Your task to perform on an android device: allow cookies in the chrome app Image 0: 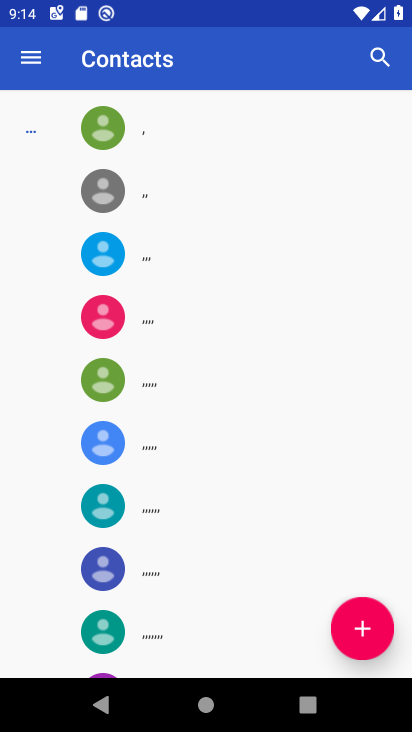
Step 0: press home button
Your task to perform on an android device: allow cookies in the chrome app Image 1: 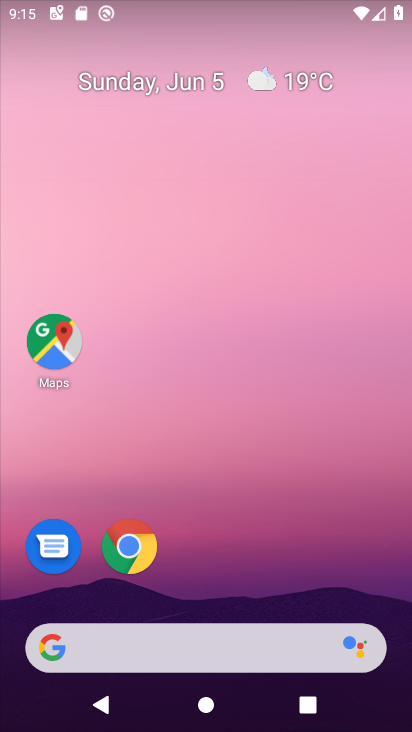
Step 1: drag from (268, 584) to (255, 179)
Your task to perform on an android device: allow cookies in the chrome app Image 2: 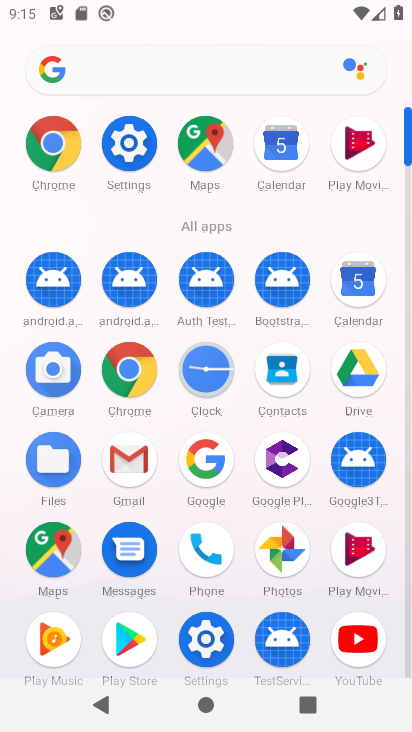
Step 2: click (53, 132)
Your task to perform on an android device: allow cookies in the chrome app Image 3: 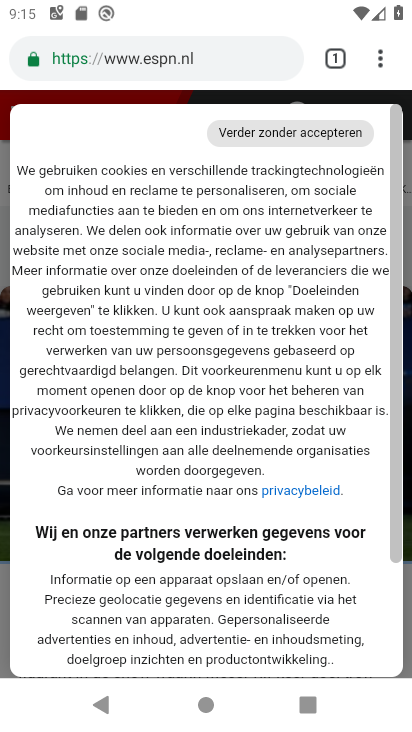
Step 3: drag from (379, 45) to (159, 587)
Your task to perform on an android device: allow cookies in the chrome app Image 4: 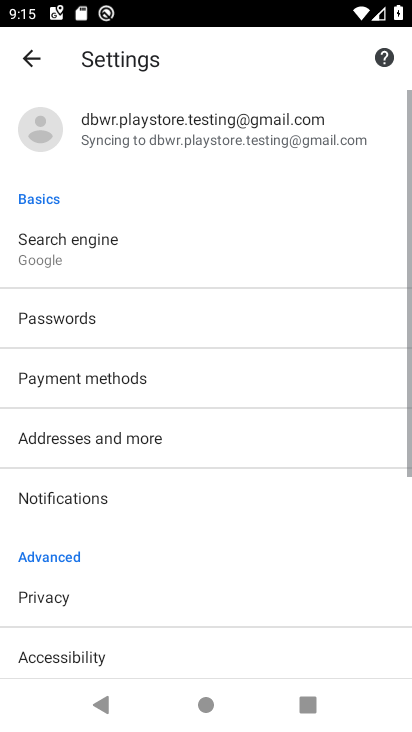
Step 4: drag from (204, 620) to (150, 308)
Your task to perform on an android device: allow cookies in the chrome app Image 5: 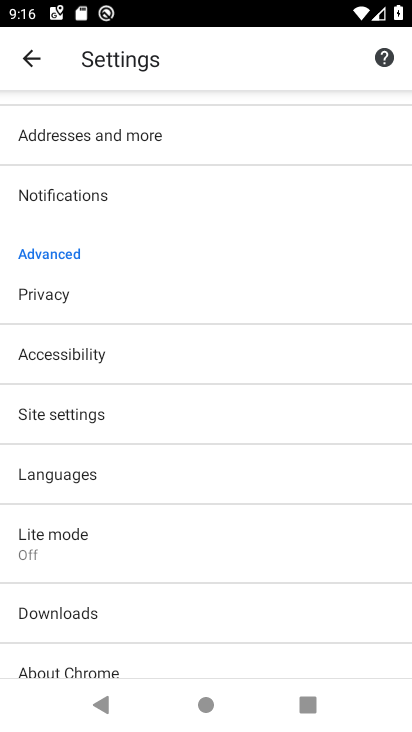
Step 5: click (262, 409)
Your task to perform on an android device: allow cookies in the chrome app Image 6: 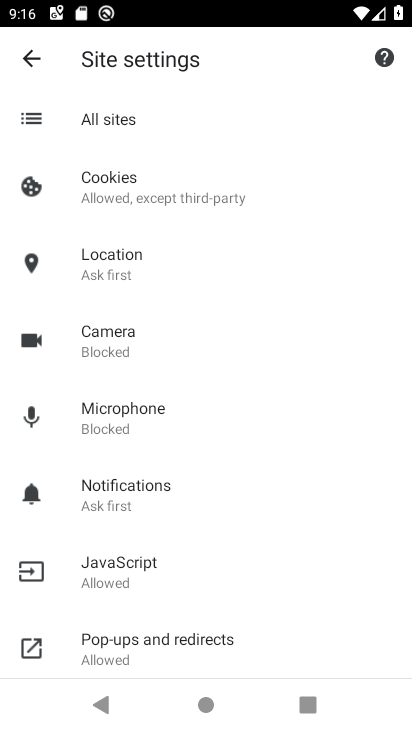
Step 6: click (96, 195)
Your task to perform on an android device: allow cookies in the chrome app Image 7: 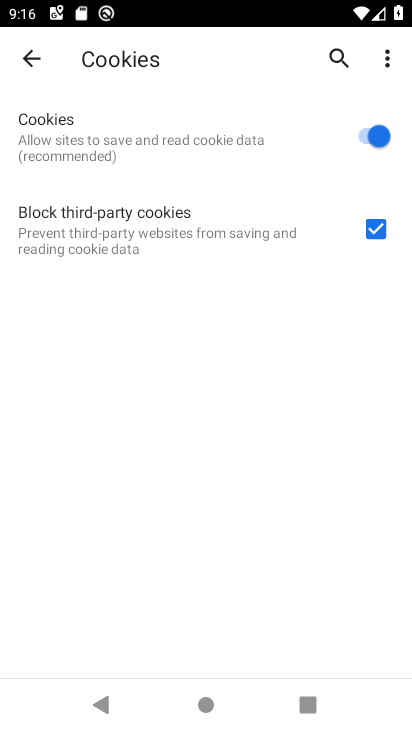
Step 7: task complete